Your task to perform on an android device: Open privacy settings Image 0: 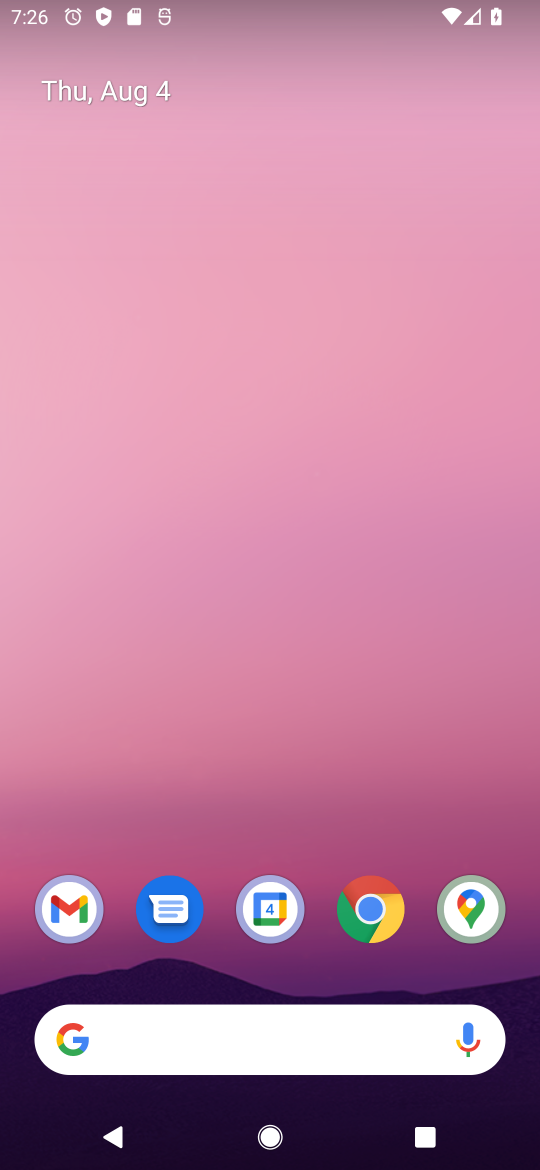
Step 0: drag from (285, 656) to (325, 133)
Your task to perform on an android device: Open privacy settings Image 1: 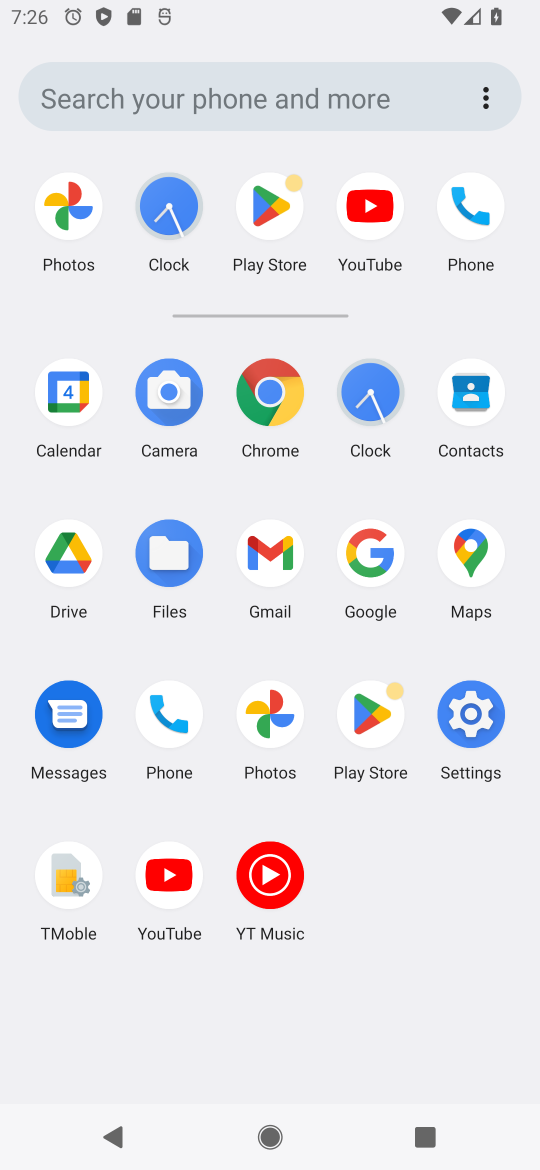
Step 1: click (475, 704)
Your task to perform on an android device: Open privacy settings Image 2: 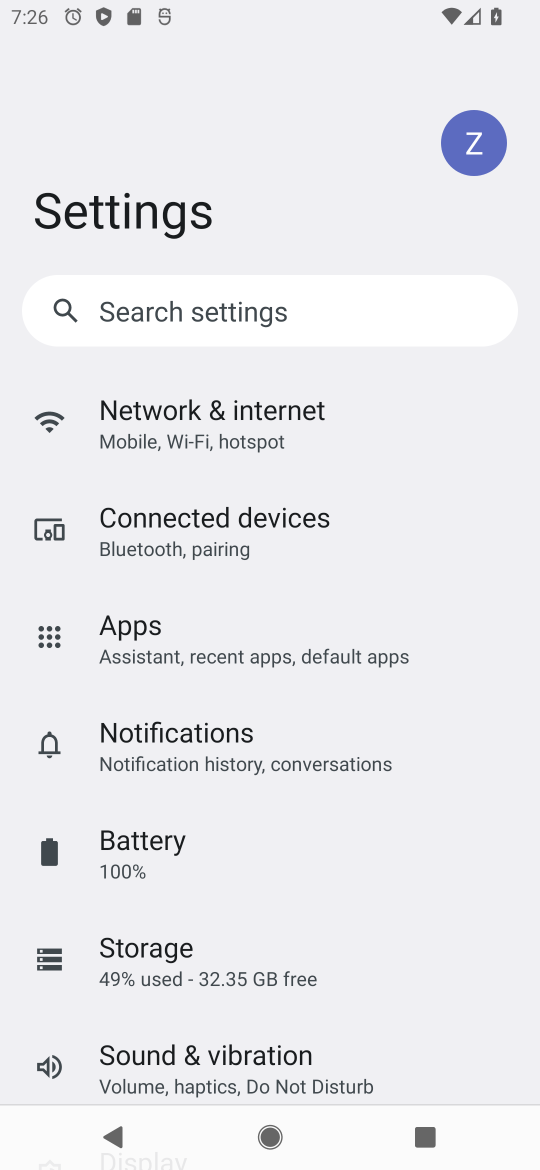
Step 2: drag from (220, 939) to (283, 293)
Your task to perform on an android device: Open privacy settings Image 3: 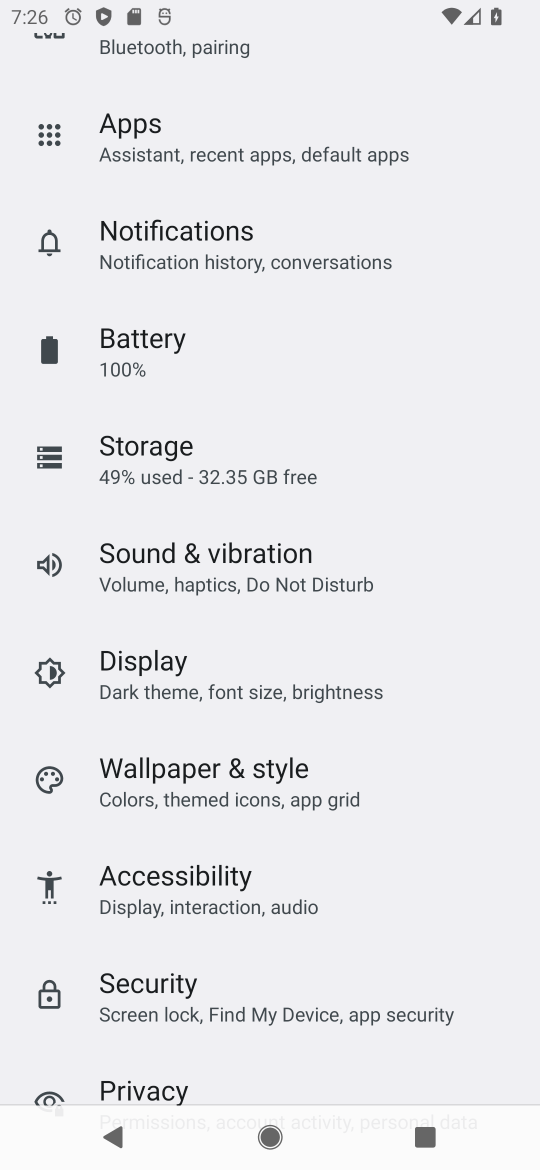
Step 3: drag from (230, 1001) to (282, 489)
Your task to perform on an android device: Open privacy settings Image 4: 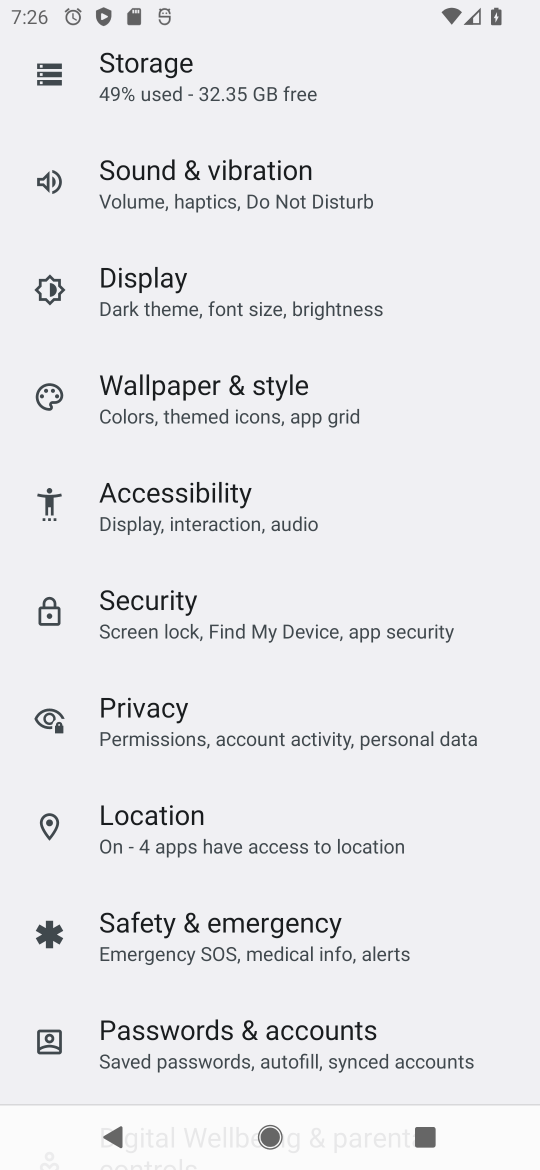
Step 4: click (145, 712)
Your task to perform on an android device: Open privacy settings Image 5: 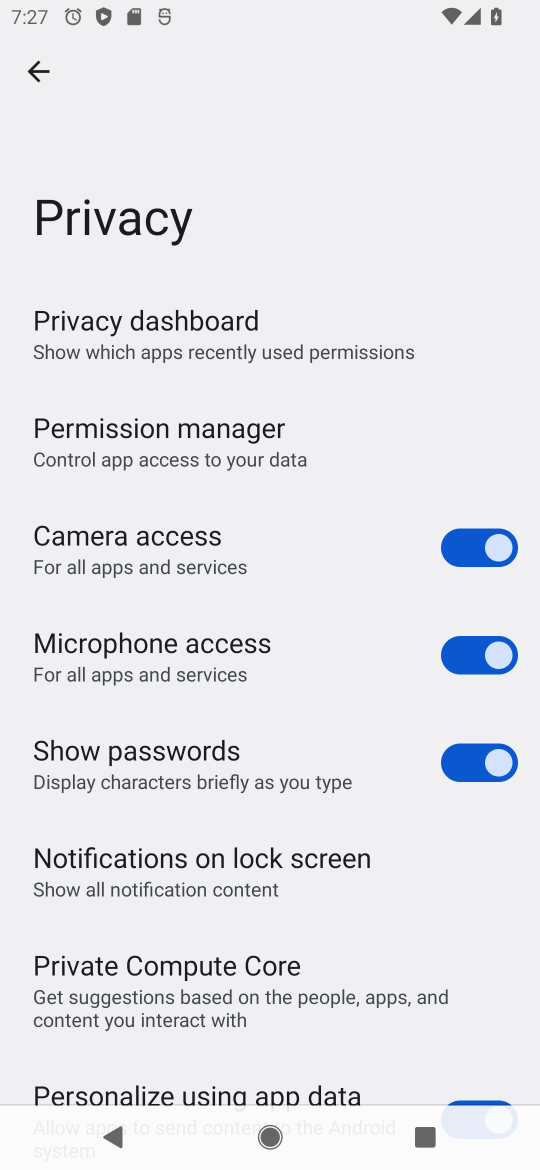
Step 5: task complete